Your task to perform on an android device: read, delete, or share a saved page in the chrome app Image 0: 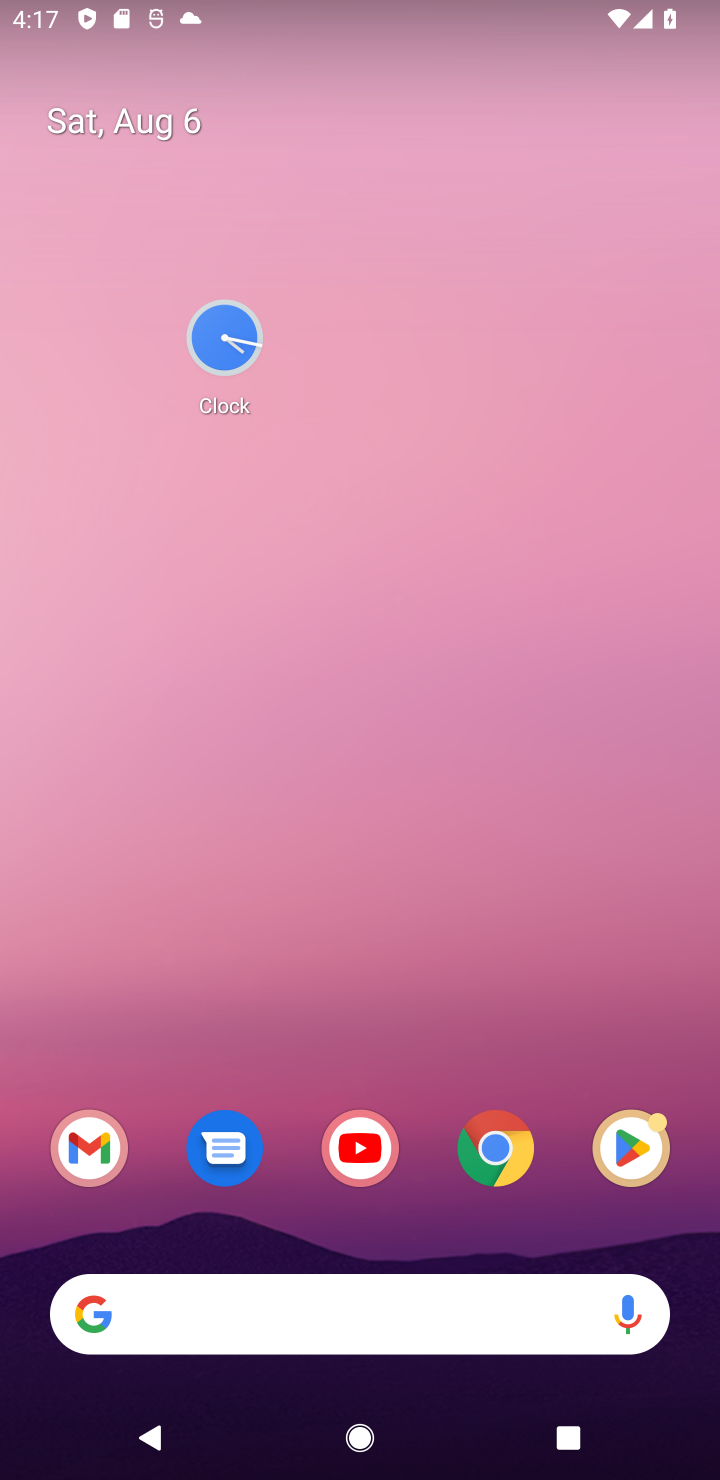
Step 0: drag from (324, 1022) to (411, 357)
Your task to perform on an android device: read, delete, or share a saved page in the chrome app Image 1: 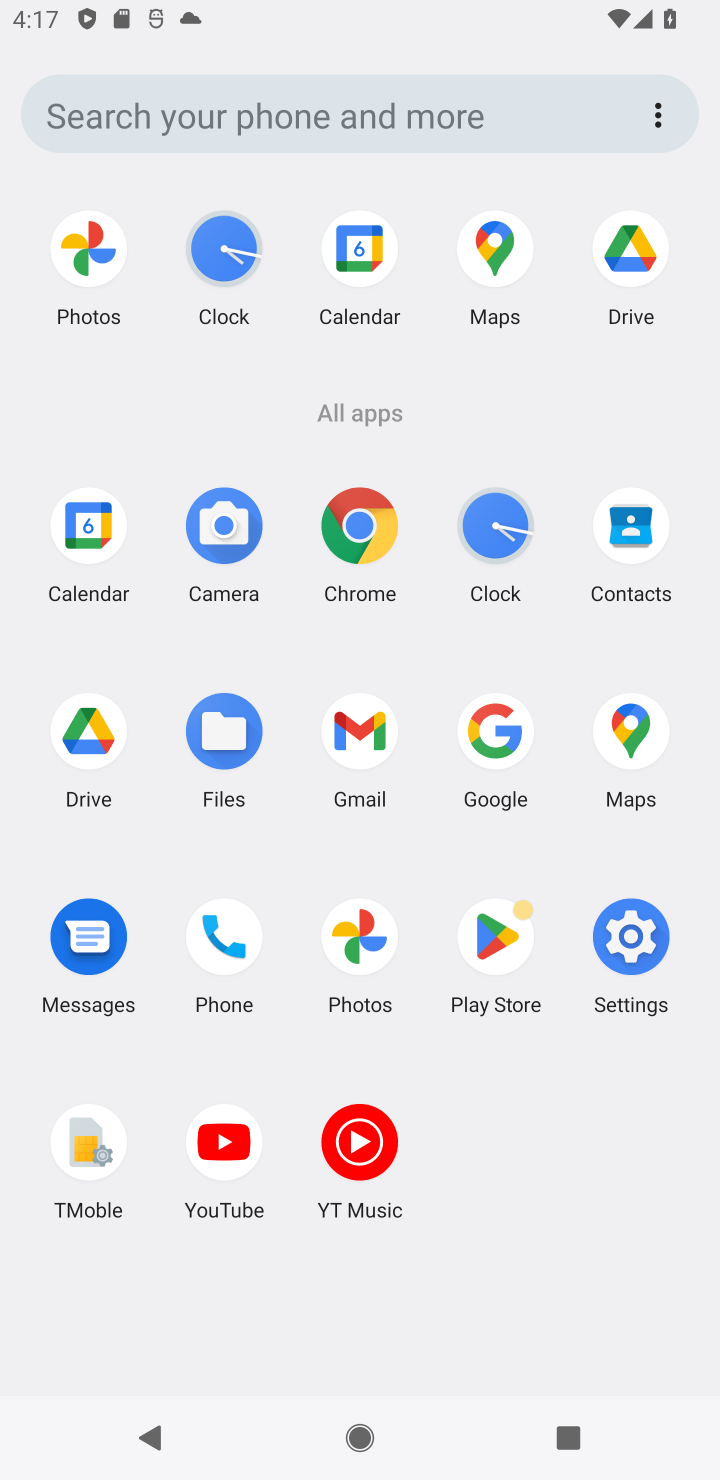
Step 1: click (360, 524)
Your task to perform on an android device: read, delete, or share a saved page in the chrome app Image 2: 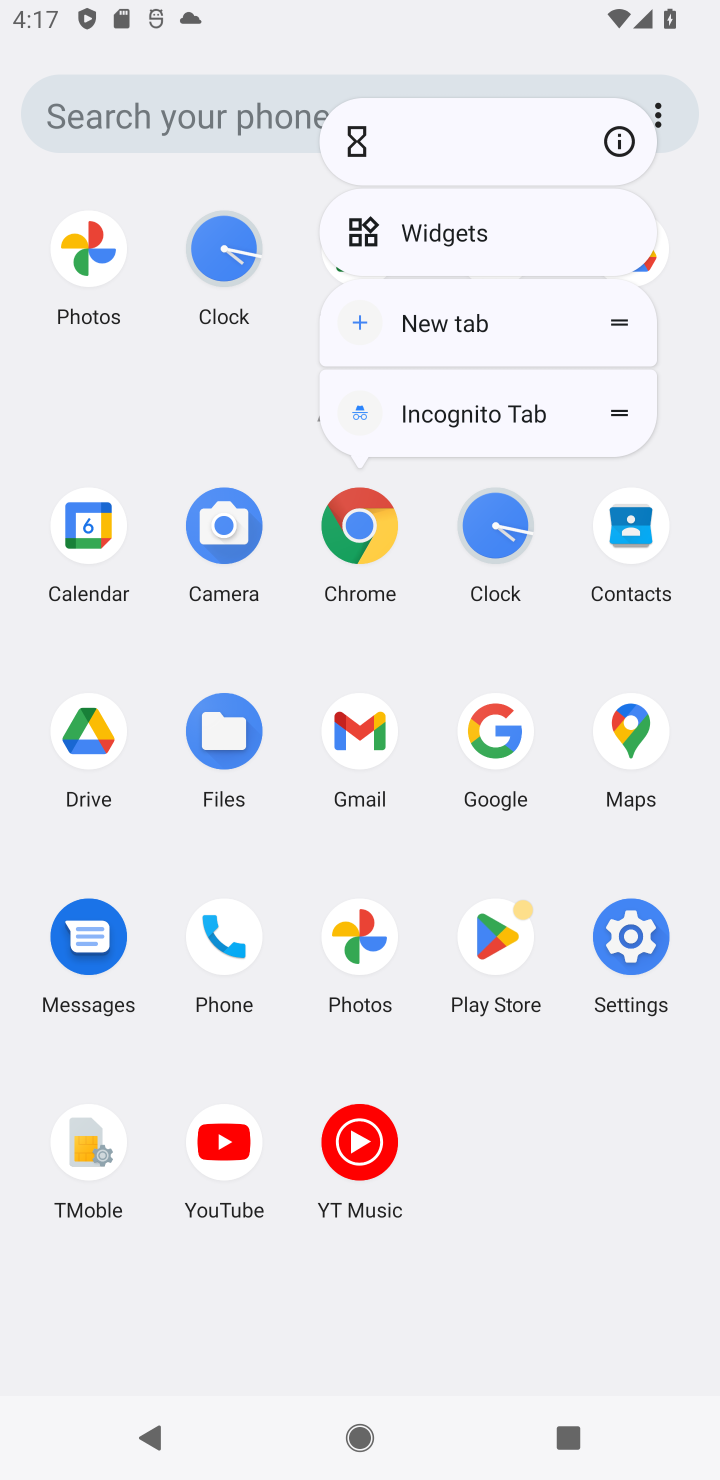
Step 2: click (615, 140)
Your task to perform on an android device: read, delete, or share a saved page in the chrome app Image 3: 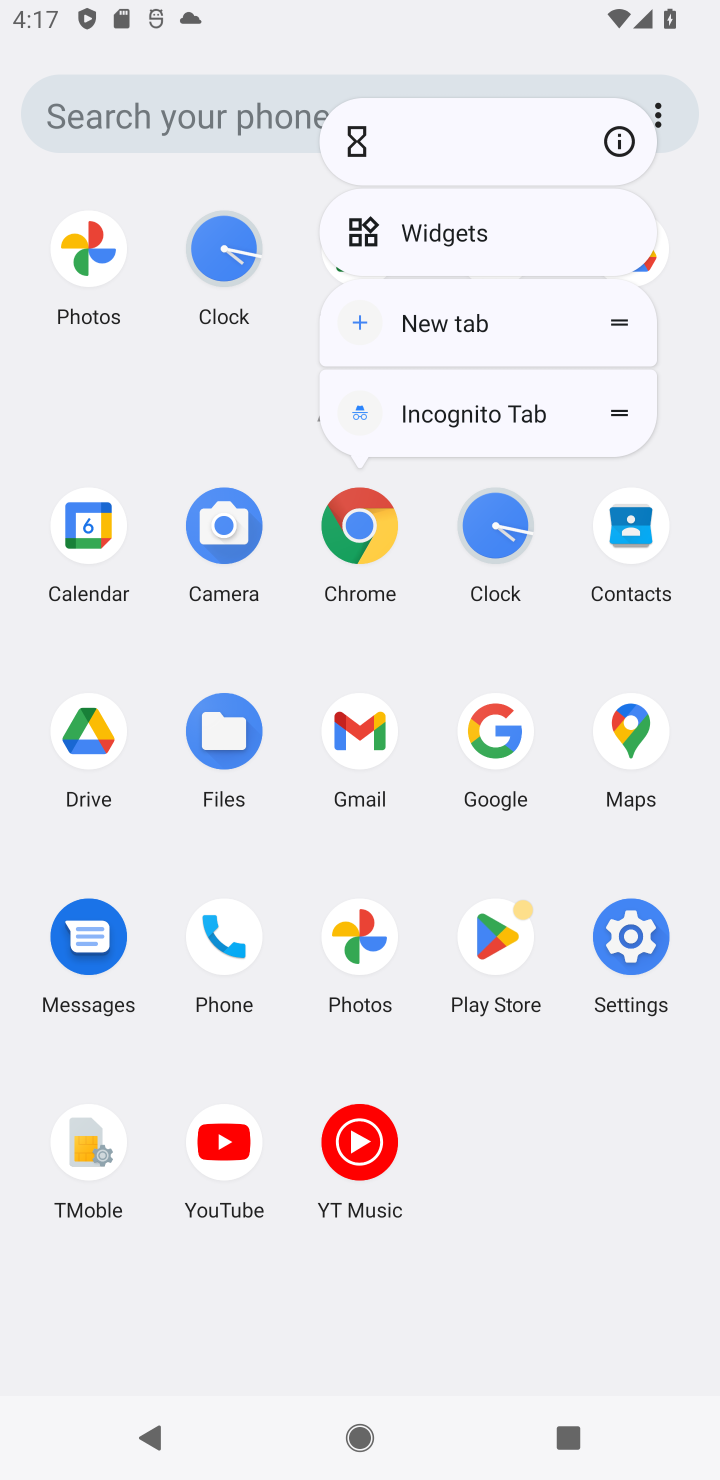
Step 3: click (629, 125)
Your task to perform on an android device: read, delete, or share a saved page in the chrome app Image 4: 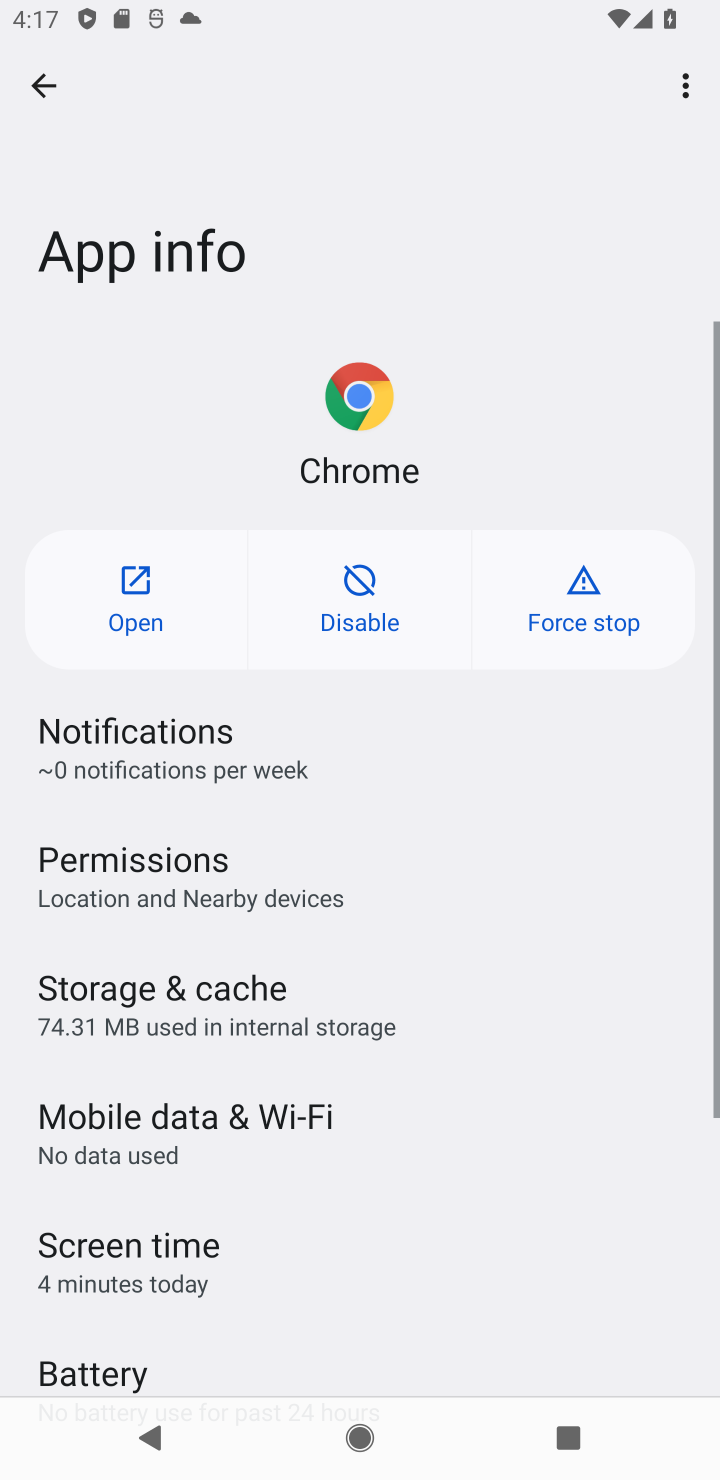
Step 4: click (135, 575)
Your task to perform on an android device: read, delete, or share a saved page in the chrome app Image 5: 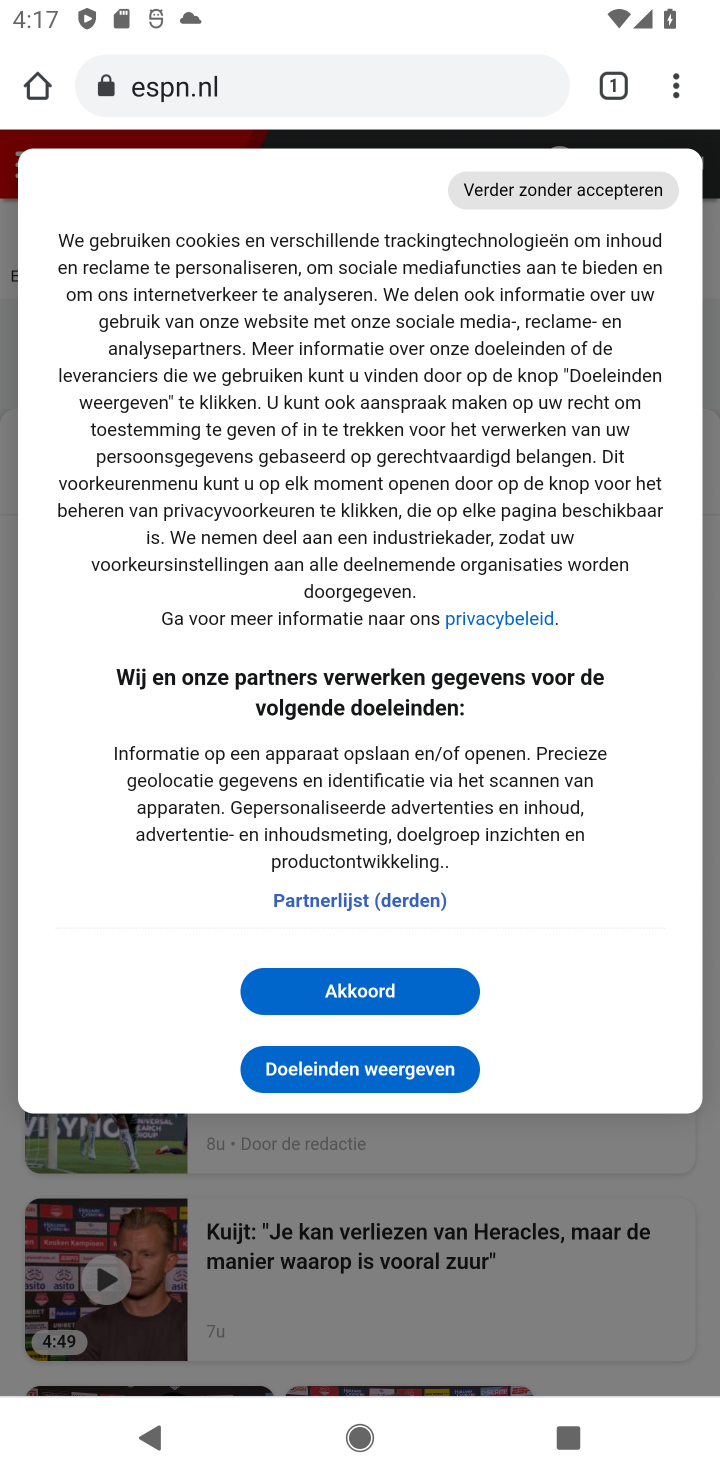
Step 5: drag from (389, 771) to (452, 253)
Your task to perform on an android device: read, delete, or share a saved page in the chrome app Image 6: 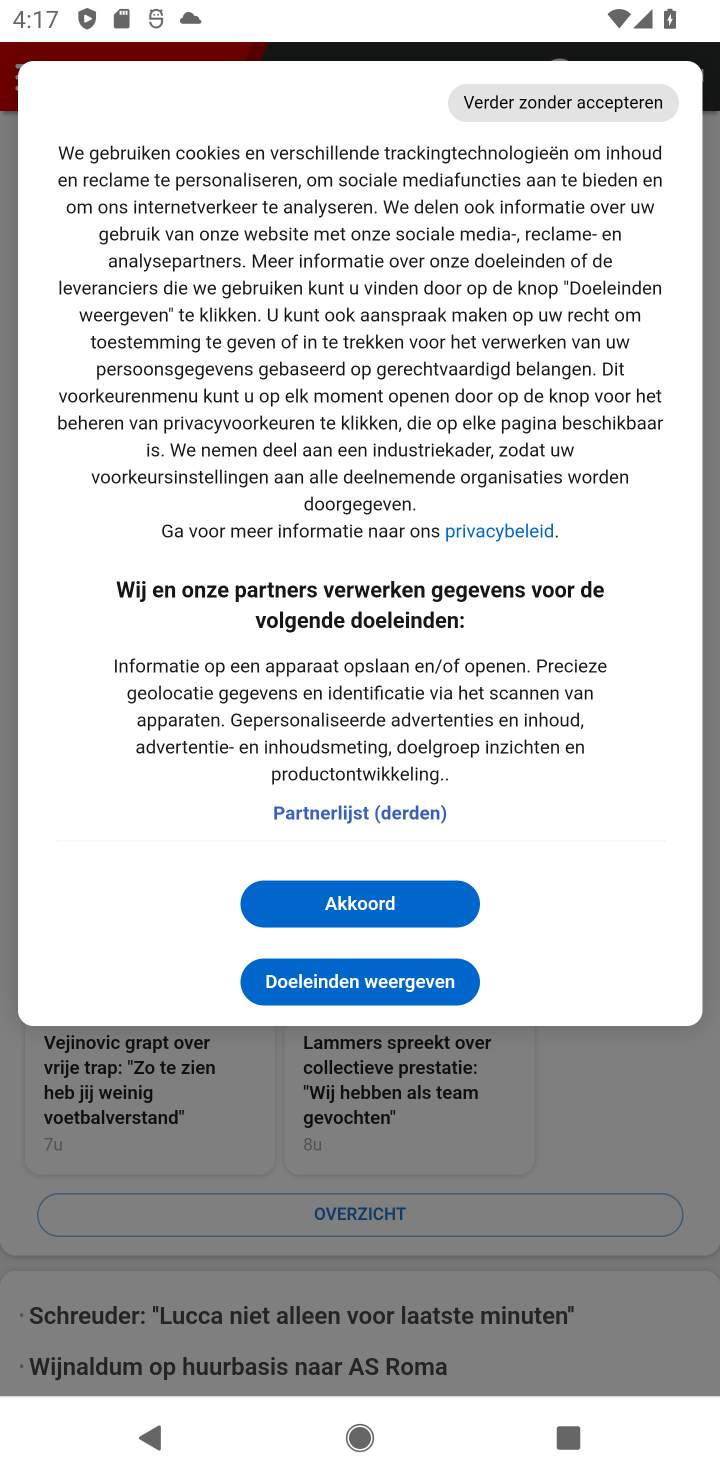
Step 6: drag from (546, 1113) to (608, 1449)
Your task to perform on an android device: read, delete, or share a saved page in the chrome app Image 7: 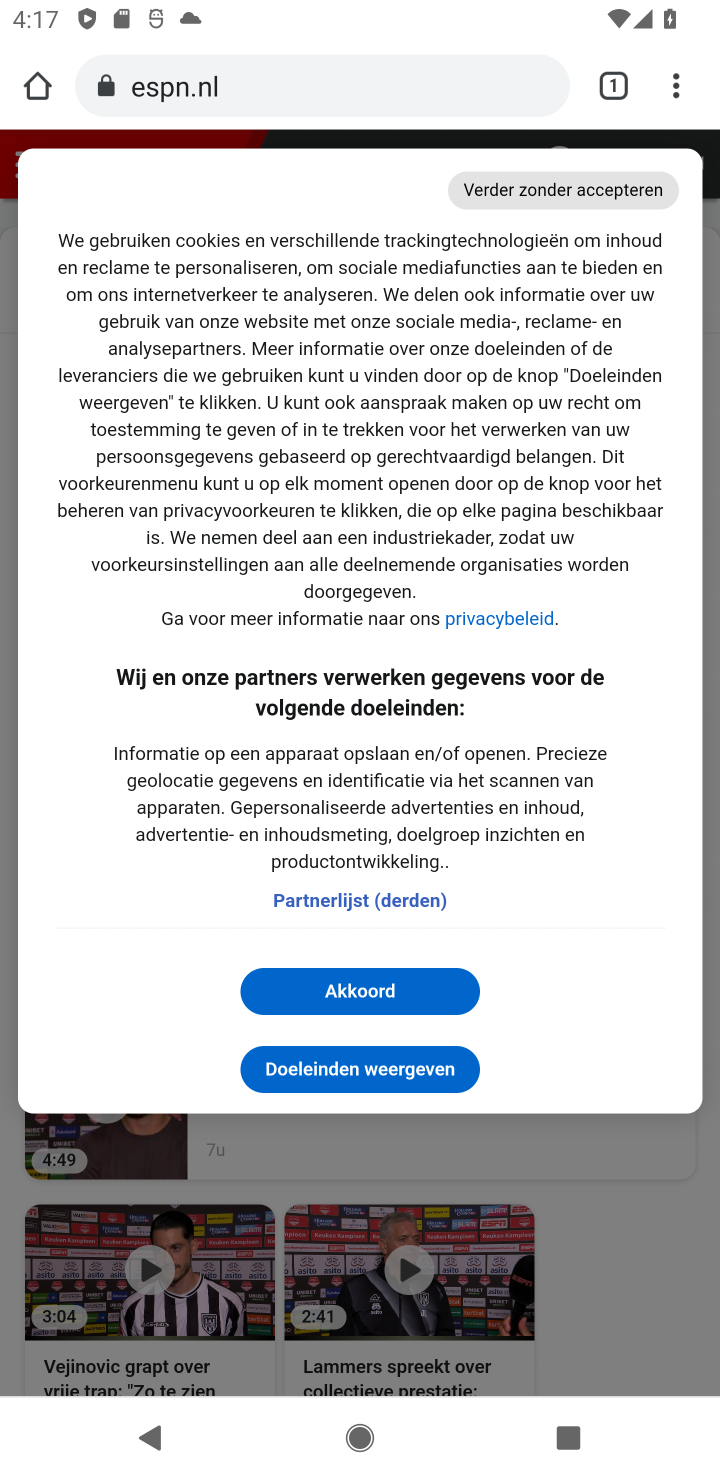
Step 7: click (658, 132)
Your task to perform on an android device: read, delete, or share a saved page in the chrome app Image 8: 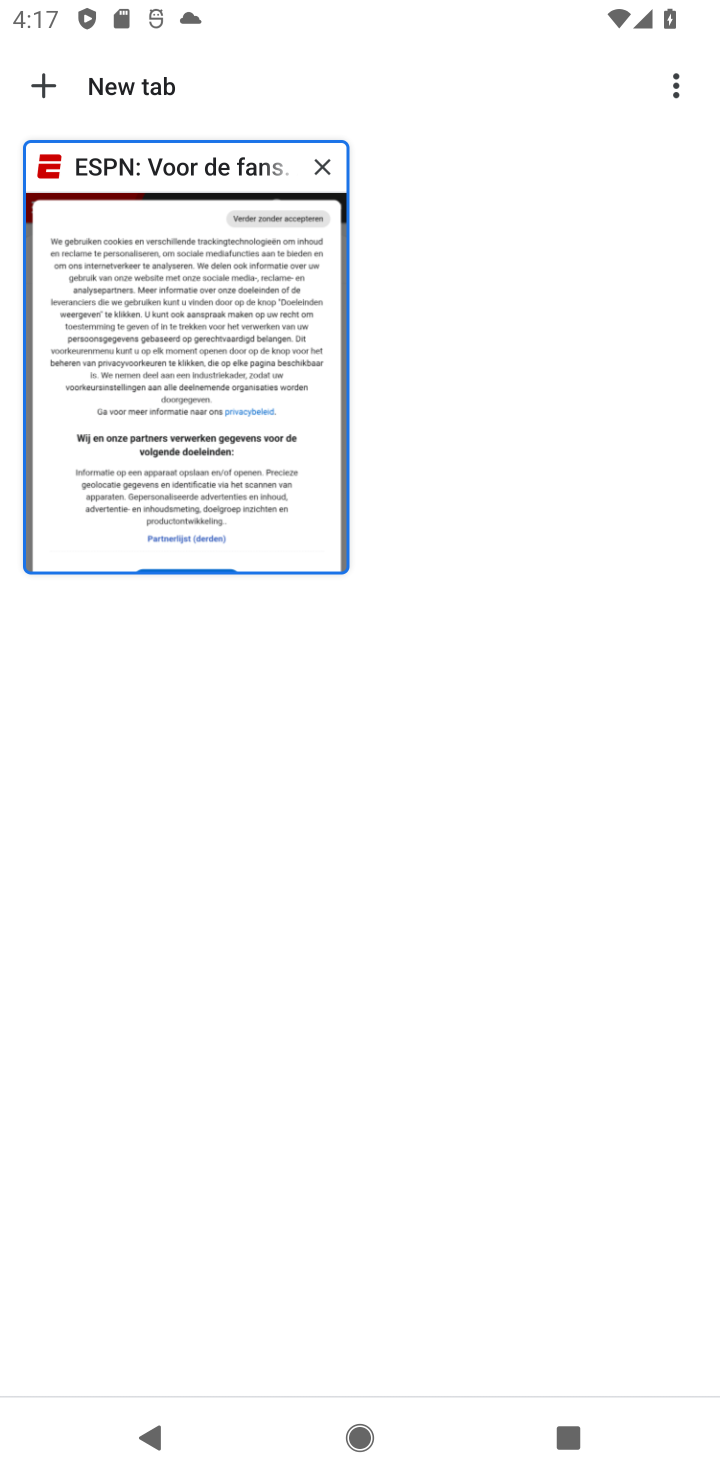
Step 8: click (210, 271)
Your task to perform on an android device: read, delete, or share a saved page in the chrome app Image 9: 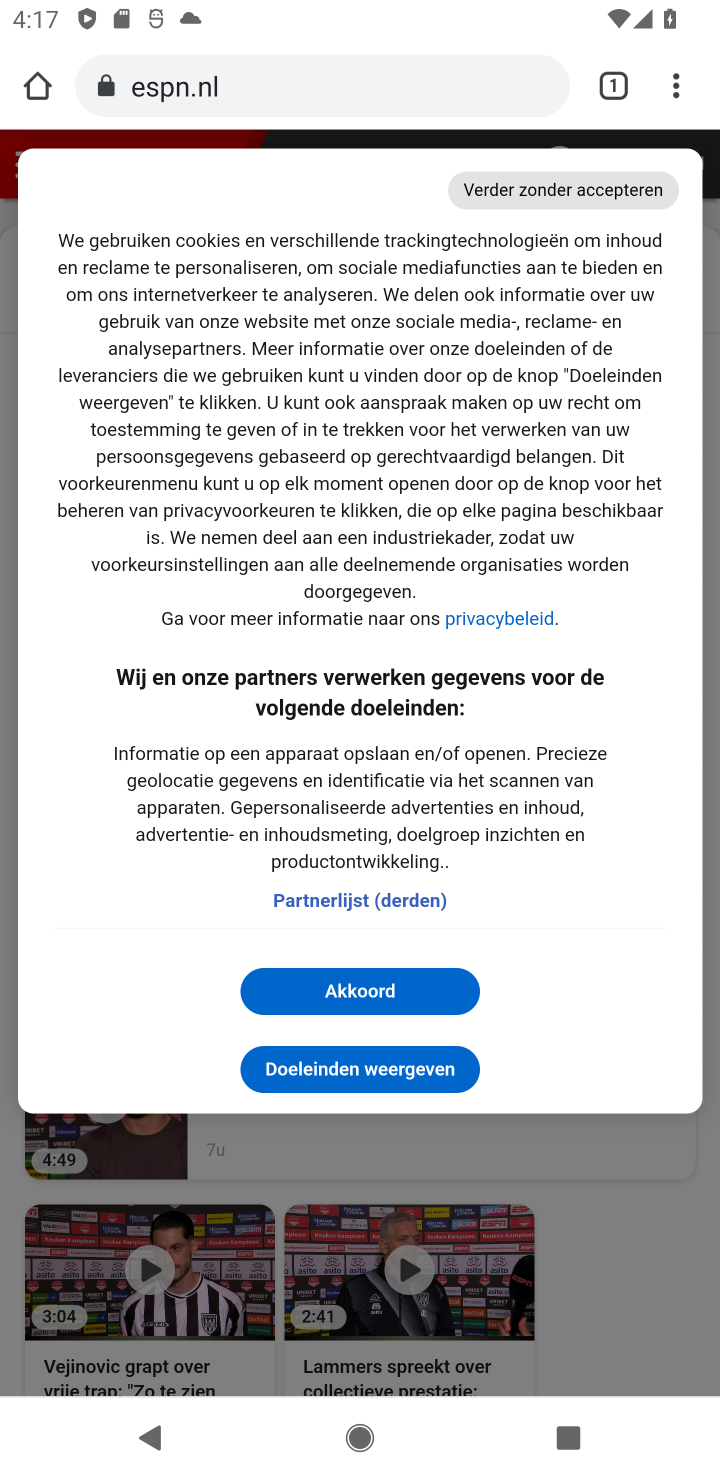
Step 9: drag from (673, 78) to (490, 584)
Your task to perform on an android device: read, delete, or share a saved page in the chrome app Image 10: 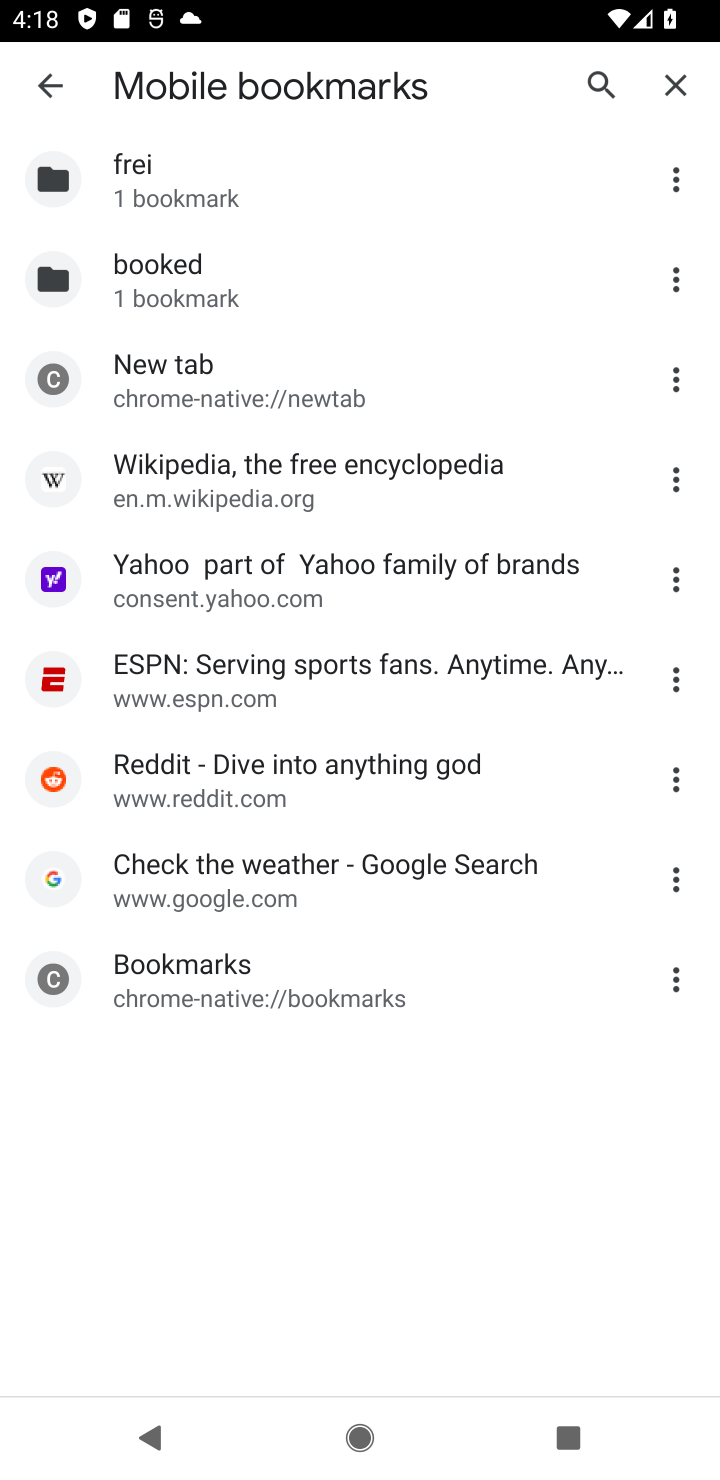
Step 10: drag from (431, 1025) to (491, 472)
Your task to perform on an android device: read, delete, or share a saved page in the chrome app Image 11: 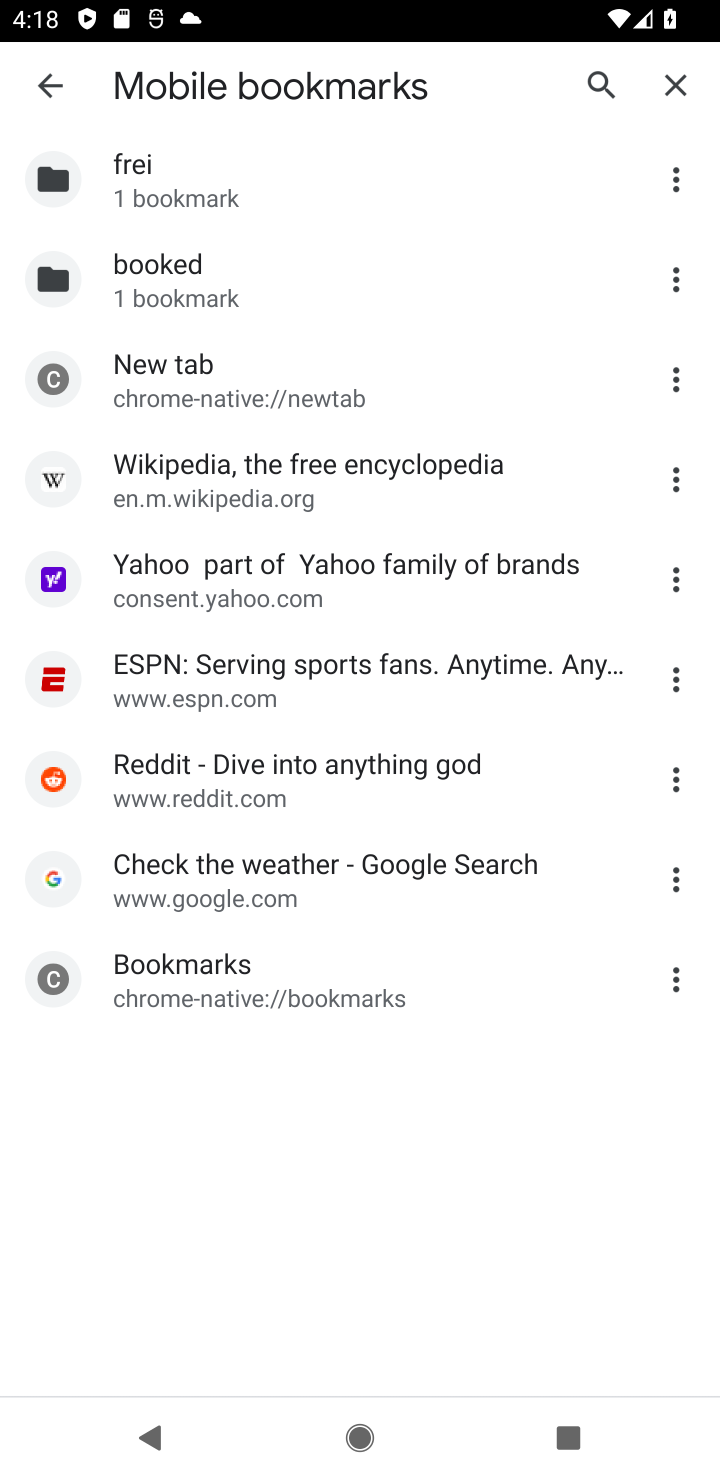
Step 11: click (676, 565)
Your task to perform on an android device: read, delete, or share a saved page in the chrome app Image 12: 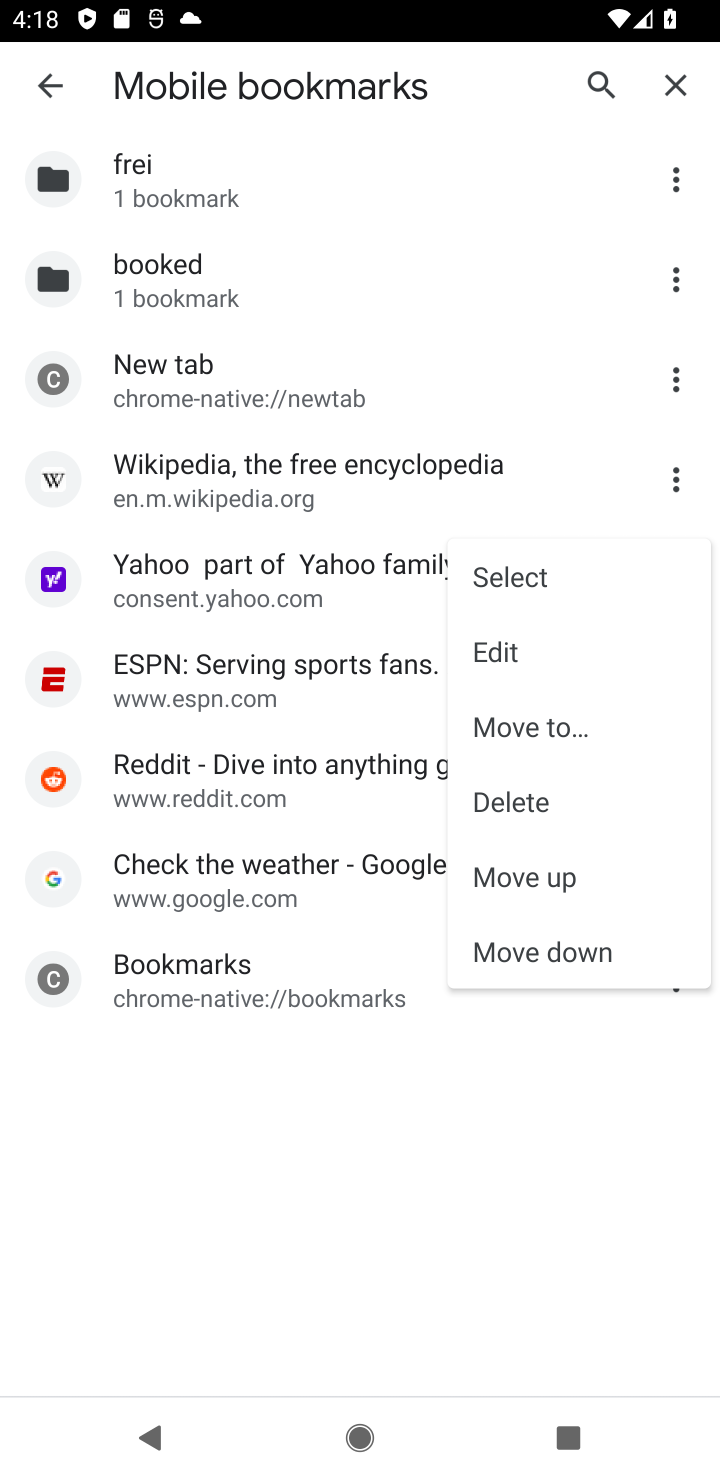
Step 12: click (532, 804)
Your task to perform on an android device: read, delete, or share a saved page in the chrome app Image 13: 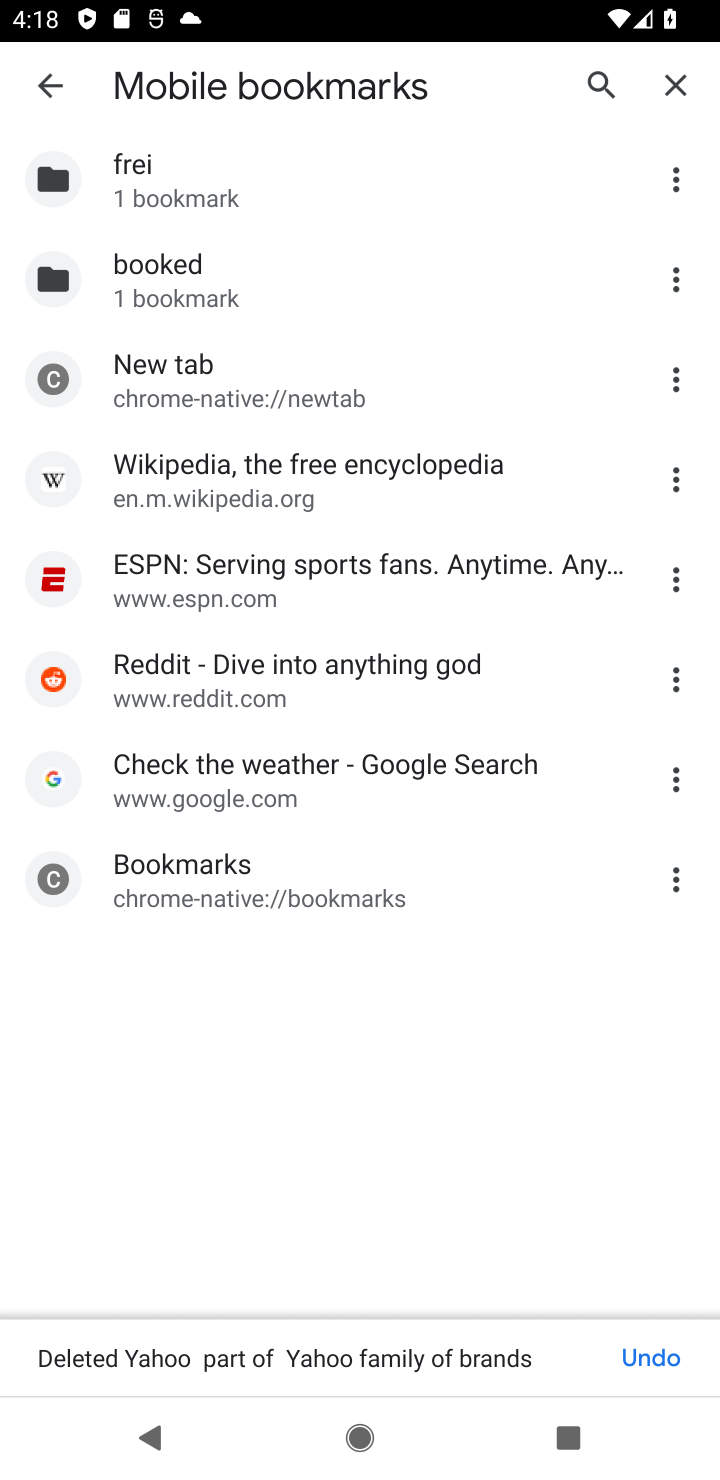
Step 13: task complete